Your task to perform on an android device: Open Wikipedia Image 0: 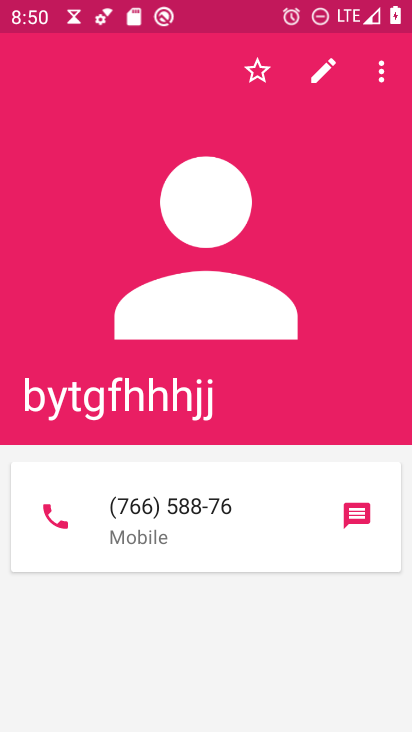
Step 0: press home button
Your task to perform on an android device: Open Wikipedia Image 1: 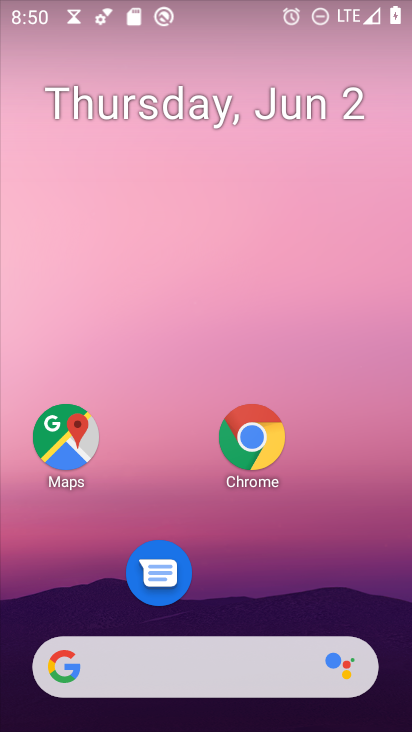
Step 1: click (265, 450)
Your task to perform on an android device: Open Wikipedia Image 2: 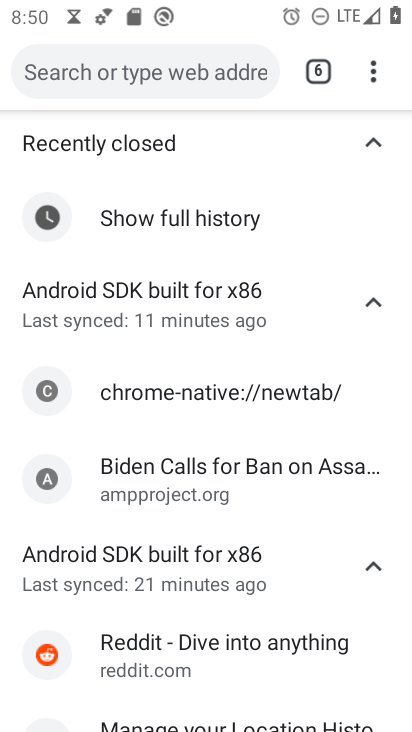
Step 2: drag from (376, 81) to (214, 147)
Your task to perform on an android device: Open Wikipedia Image 3: 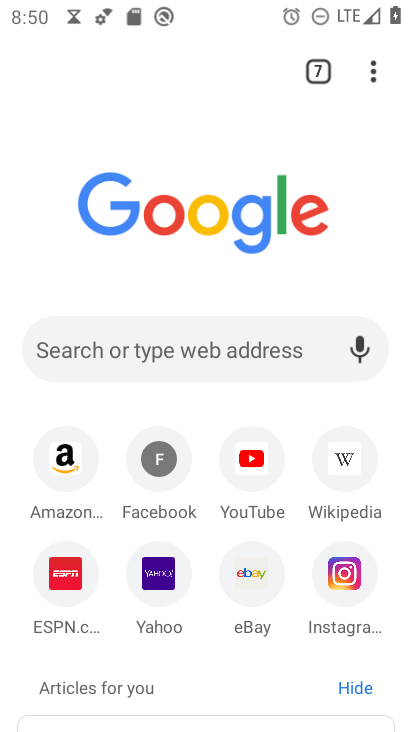
Step 3: click (342, 457)
Your task to perform on an android device: Open Wikipedia Image 4: 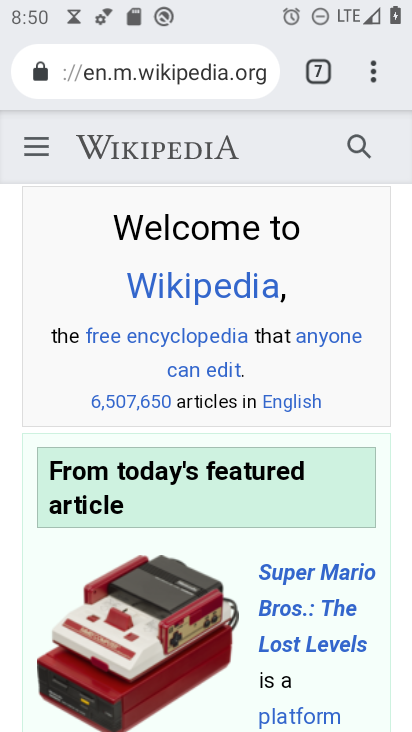
Step 4: task complete